Your task to perform on an android device: Open the calendar app, open the side menu, and click the "Day" option Image 0: 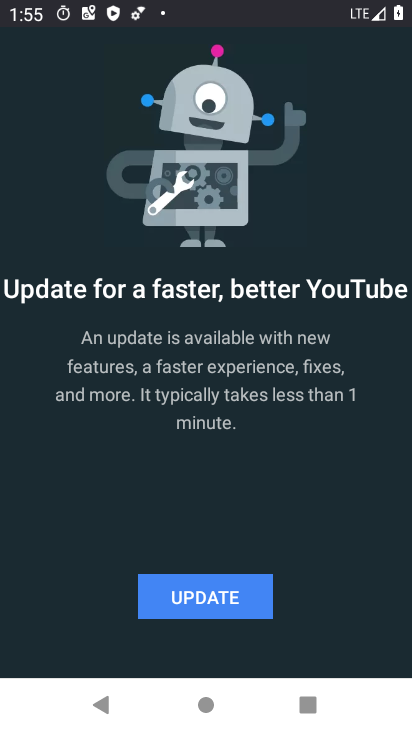
Step 0: press home button
Your task to perform on an android device: Open the calendar app, open the side menu, and click the "Day" option Image 1: 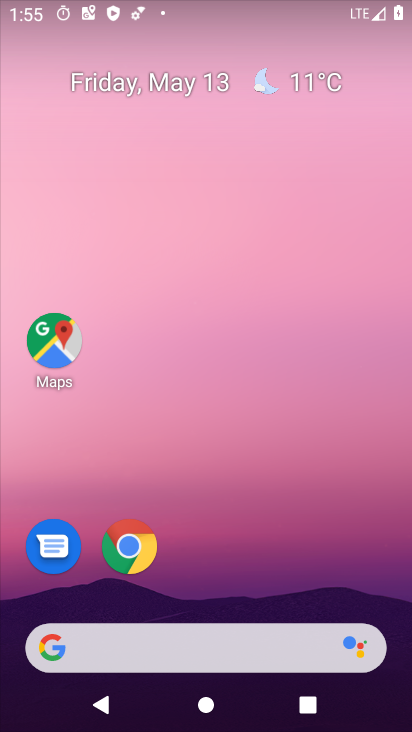
Step 1: drag from (225, 571) to (346, 113)
Your task to perform on an android device: Open the calendar app, open the side menu, and click the "Day" option Image 2: 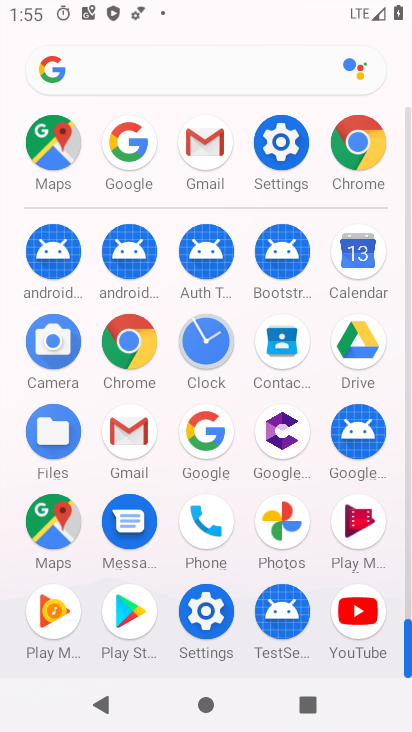
Step 2: click (363, 282)
Your task to perform on an android device: Open the calendar app, open the side menu, and click the "Day" option Image 3: 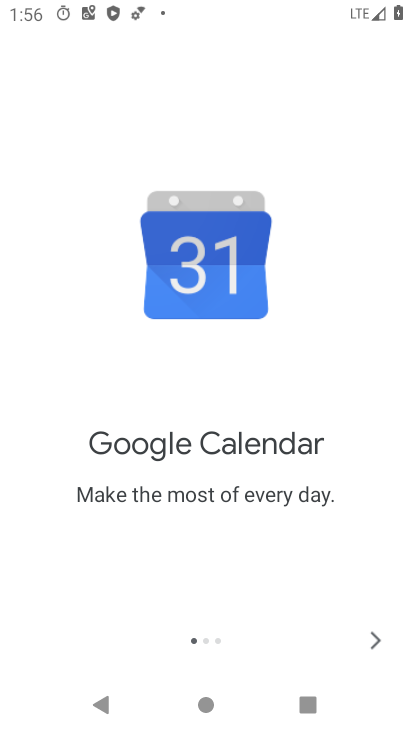
Step 3: click (380, 644)
Your task to perform on an android device: Open the calendar app, open the side menu, and click the "Day" option Image 4: 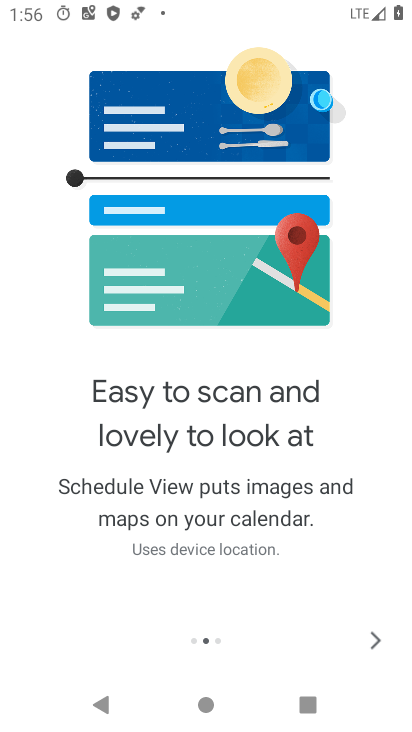
Step 4: click (380, 648)
Your task to perform on an android device: Open the calendar app, open the side menu, and click the "Day" option Image 5: 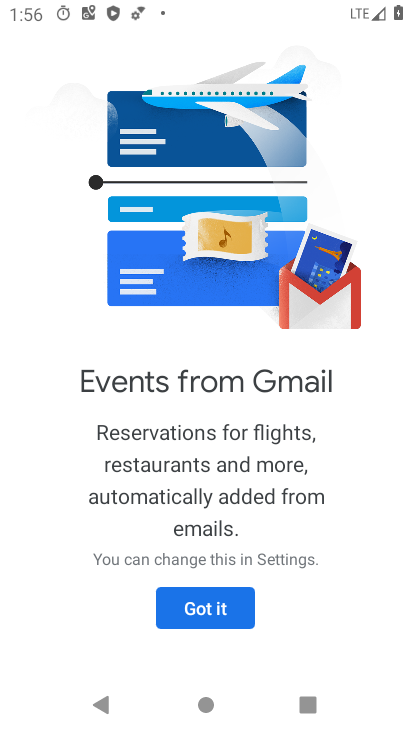
Step 5: click (241, 611)
Your task to perform on an android device: Open the calendar app, open the side menu, and click the "Day" option Image 6: 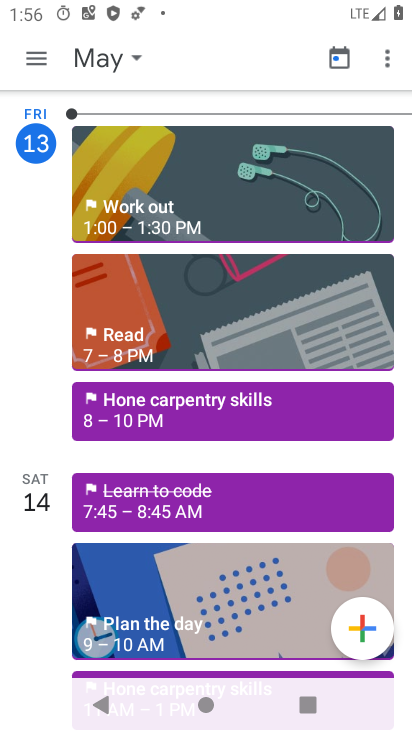
Step 6: click (42, 68)
Your task to perform on an android device: Open the calendar app, open the side menu, and click the "Day" option Image 7: 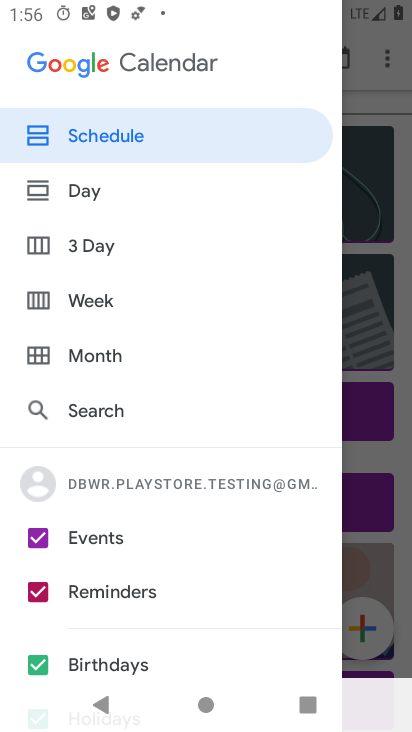
Step 7: click (113, 198)
Your task to perform on an android device: Open the calendar app, open the side menu, and click the "Day" option Image 8: 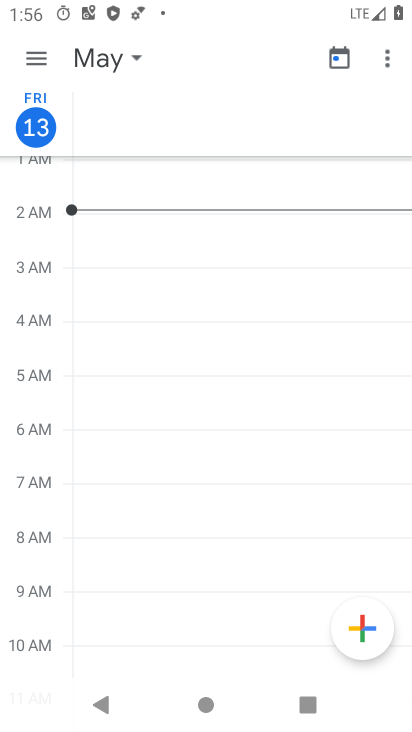
Step 8: click (45, 62)
Your task to perform on an android device: Open the calendar app, open the side menu, and click the "Day" option Image 9: 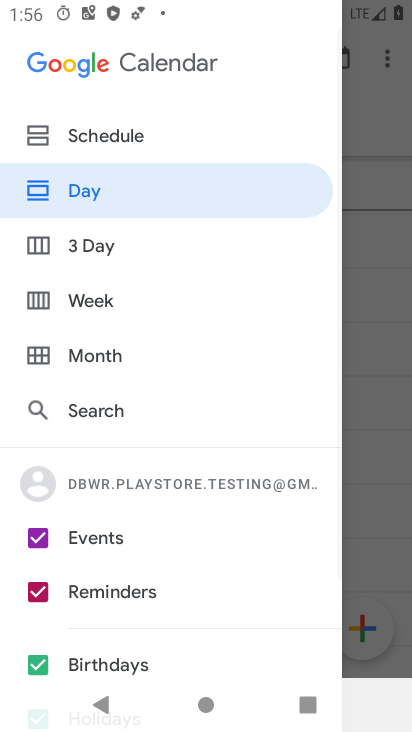
Step 9: click (149, 201)
Your task to perform on an android device: Open the calendar app, open the side menu, and click the "Day" option Image 10: 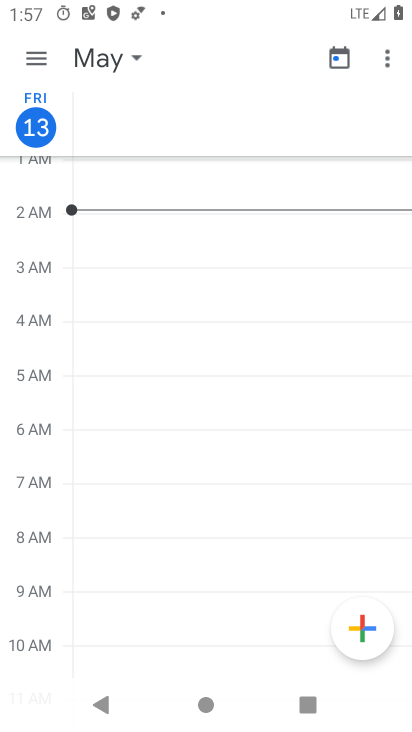
Step 10: task complete